Your task to perform on an android device: Go to Android settings Image 0: 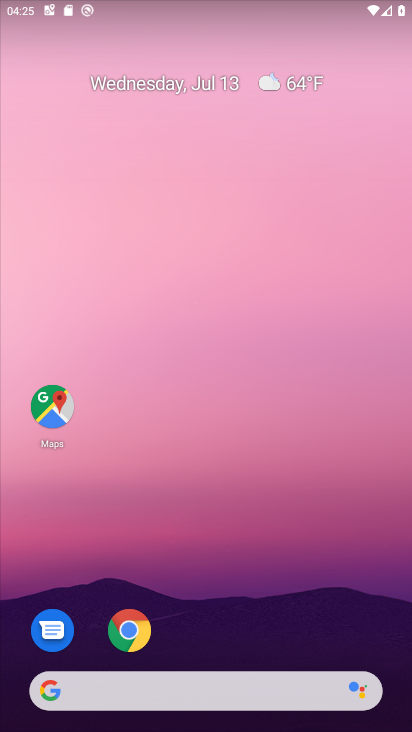
Step 0: click (198, 663)
Your task to perform on an android device: Go to Android settings Image 1: 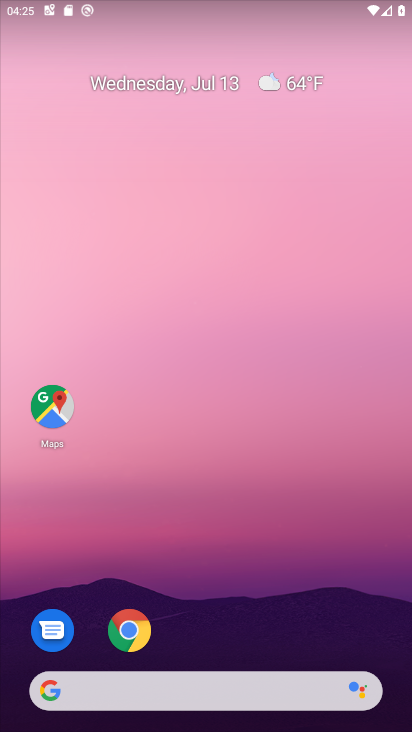
Step 1: drag from (198, 663) to (284, 50)
Your task to perform on an android device: Go to Android settings Image 2: 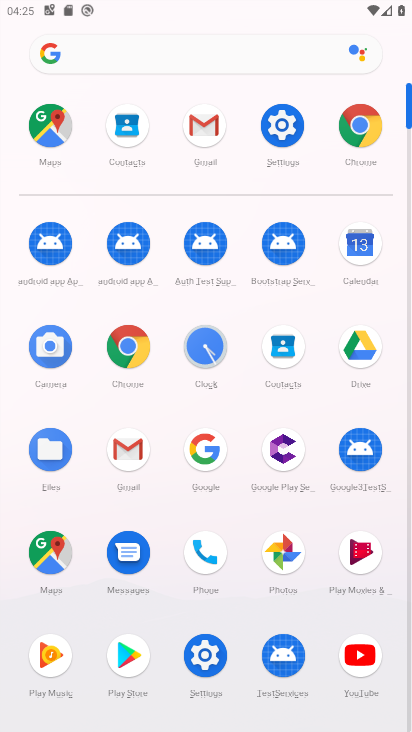
Step 2: click (283, 166)
Your task to perform on an android device: Go to Android settings Image 3: 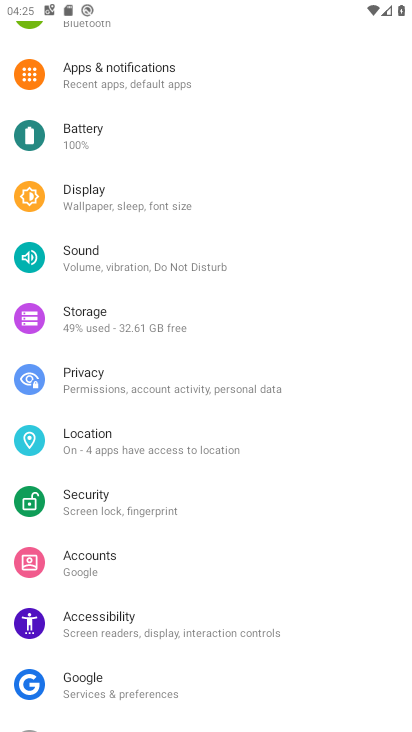
Step 3: task complete